Your task to perform on an android device: turn off airplane mode Image 0: 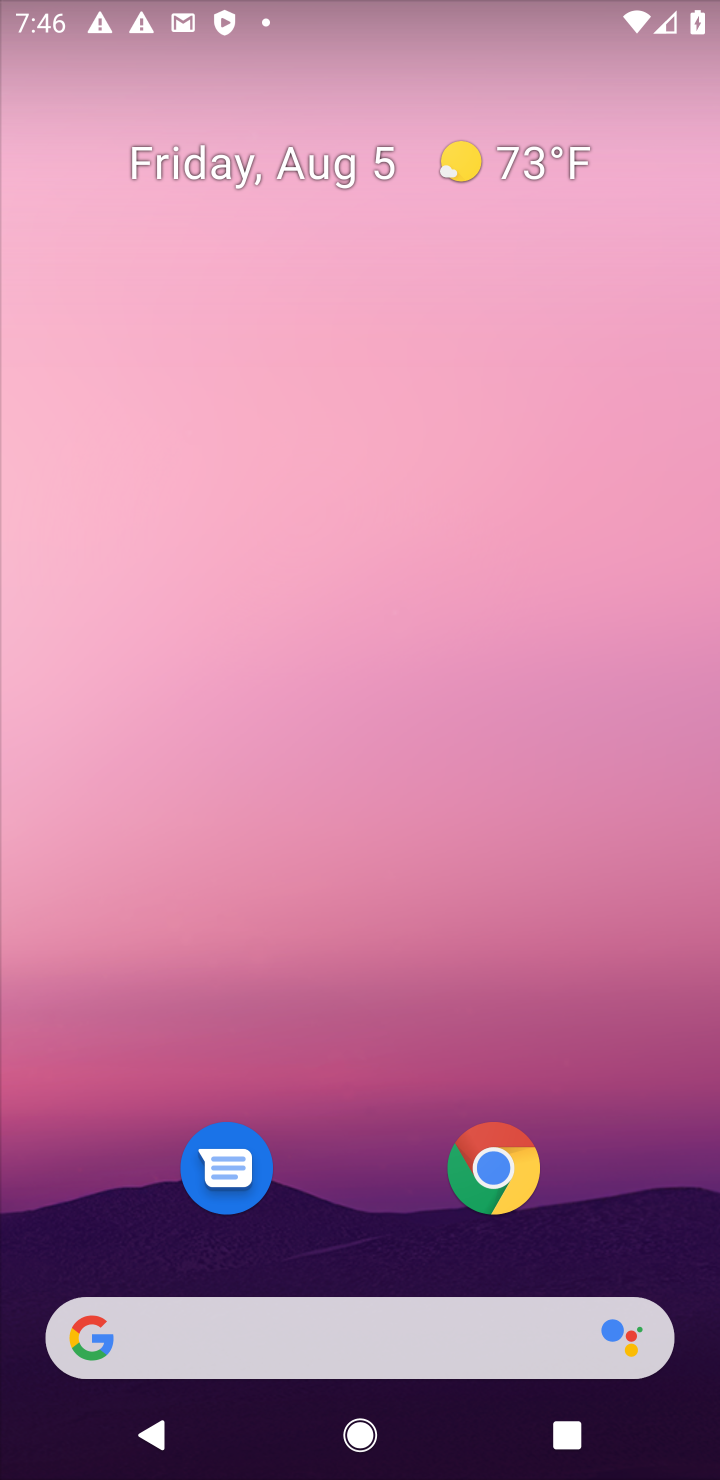
Step 0: click (400, 371)
Your task to perform on an android device: turn off airplane mode Image 1: 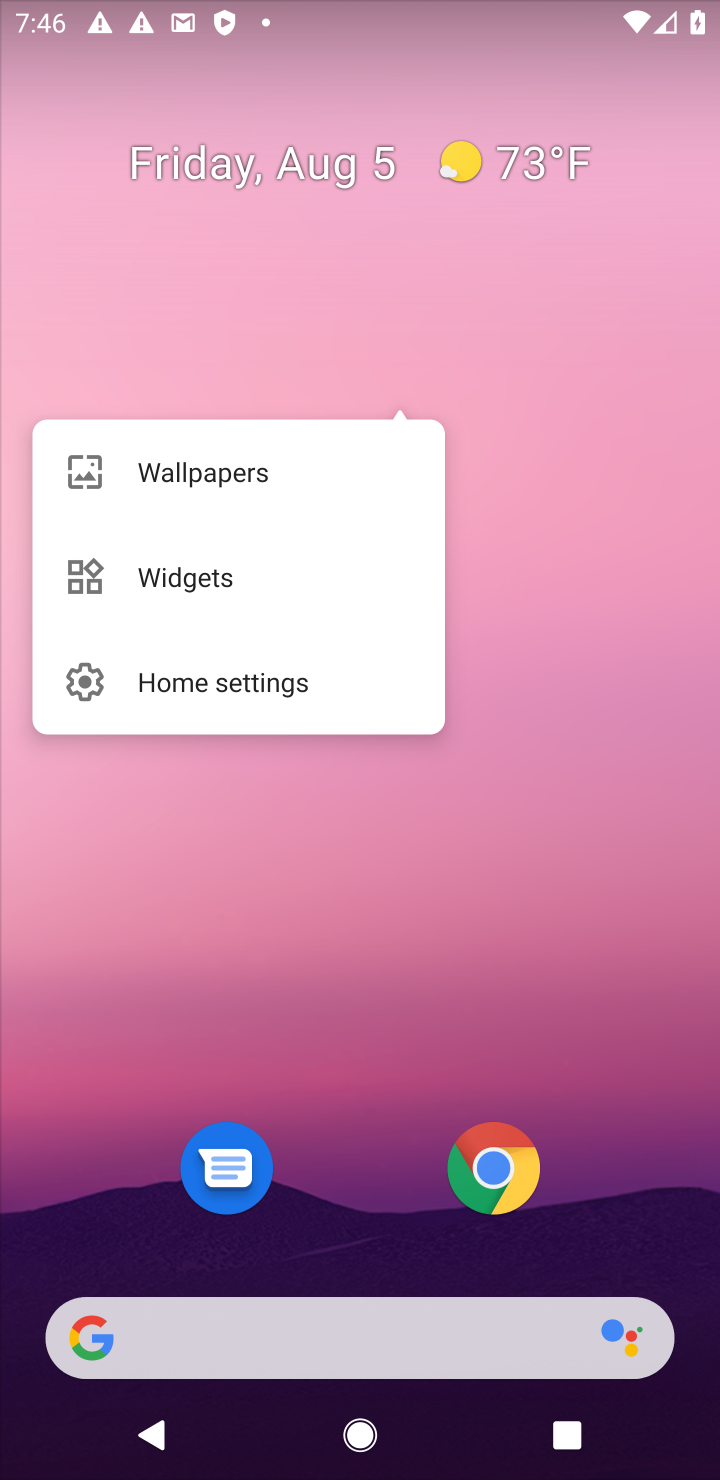
Step 1: drag from (461, 974) to (544, 38)
Your task to perform on an android device: turn off airplane mode Image 2: 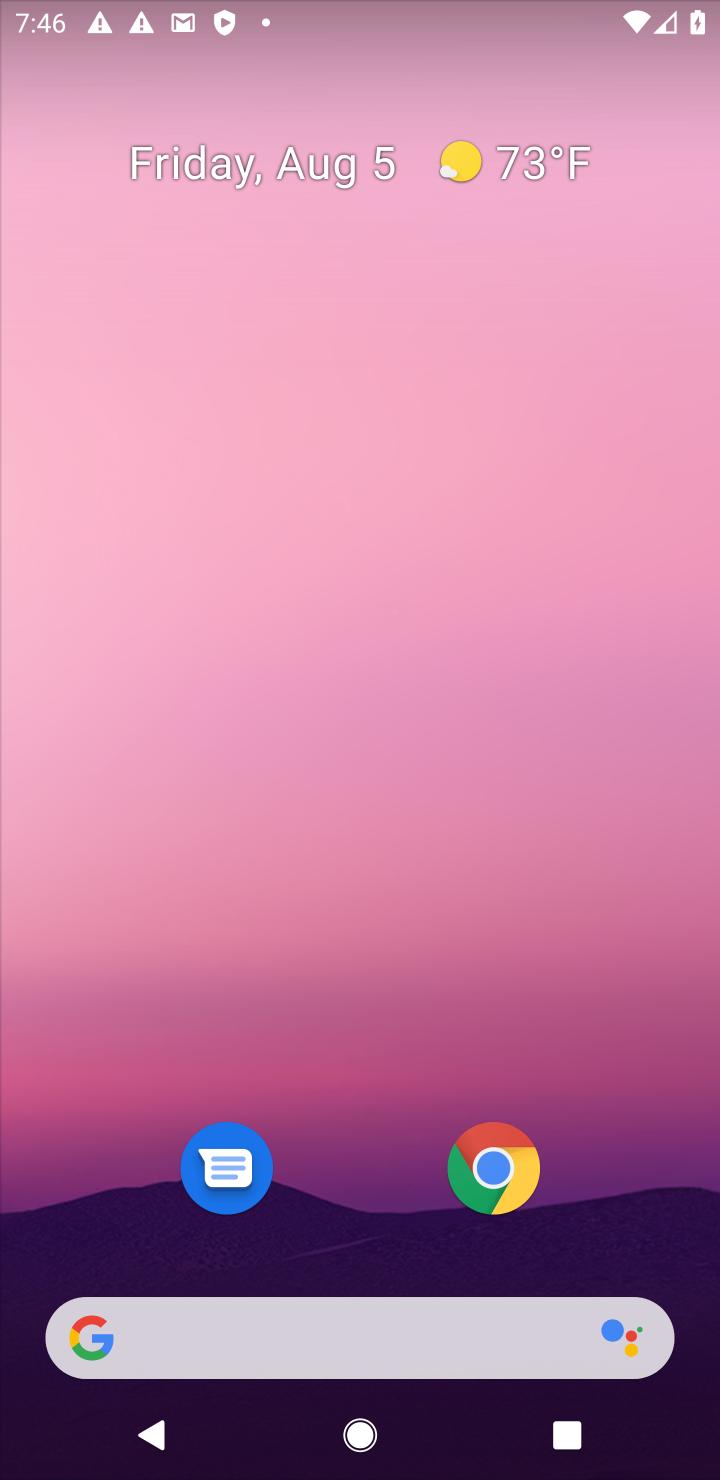
Step 2: drag from (383, 1082) to (483, 126)
Your task to perform on an android device: turn off airplane mode Image 3: 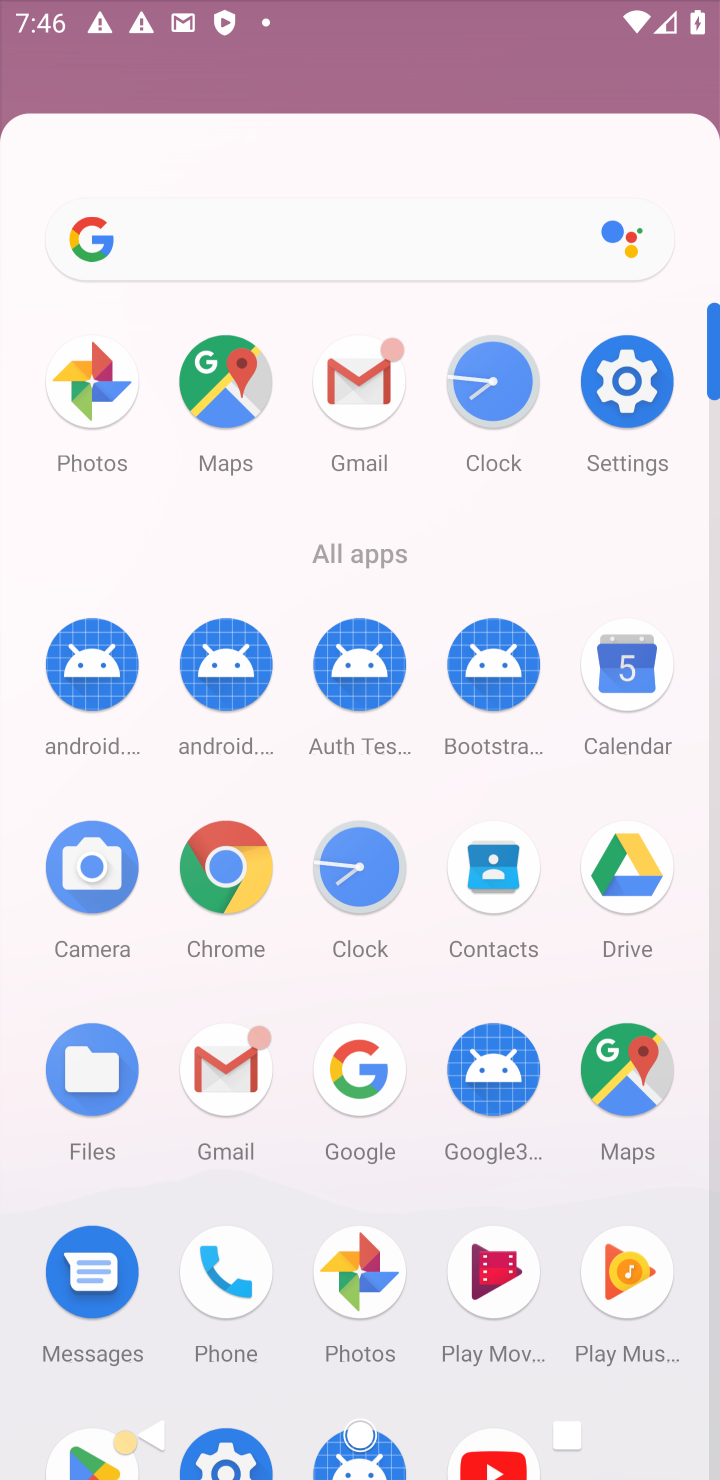
Step 3: drag from (379, 1267) to (434, 844)
Your task to perform on an android device: turn off airplane mode Image 4: 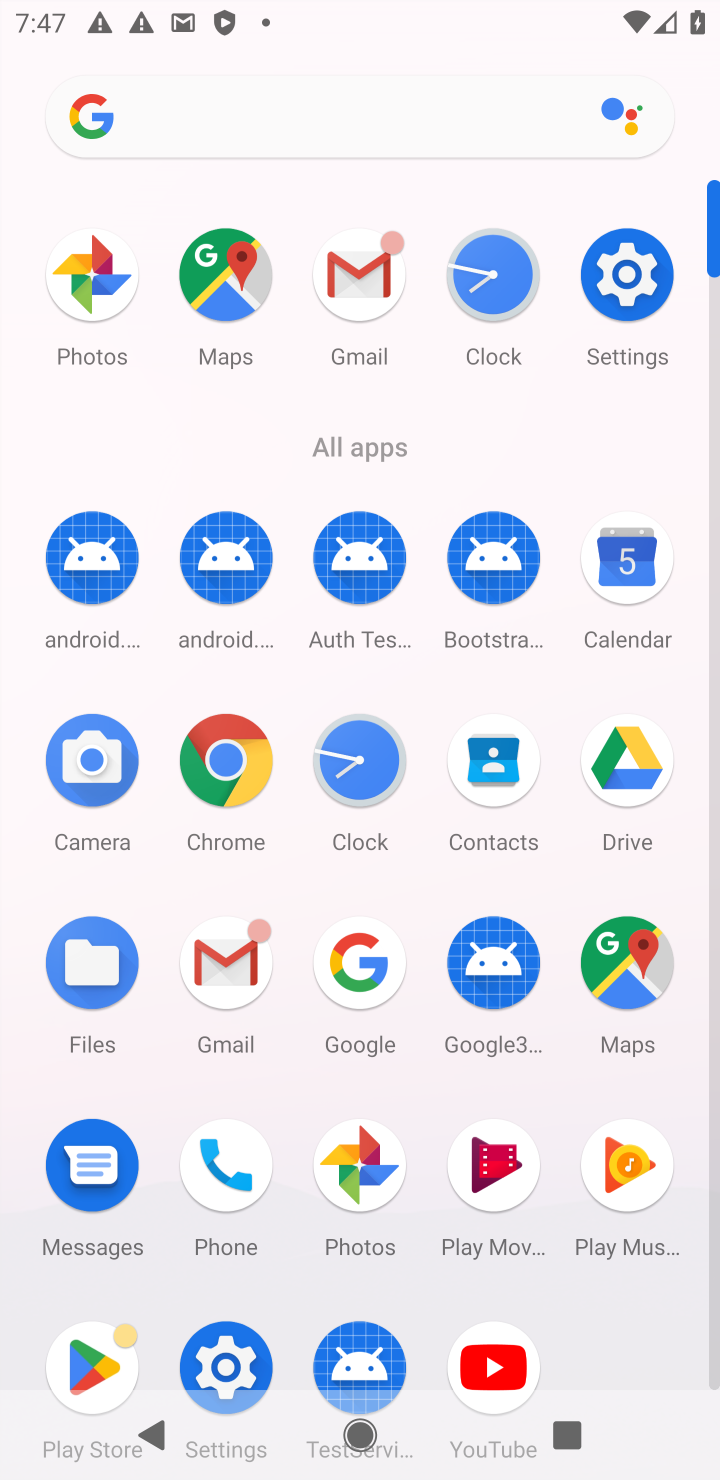
Step 4: click (653, 301)
Your task to perform on an android device: turn off airplane mode Image 5: 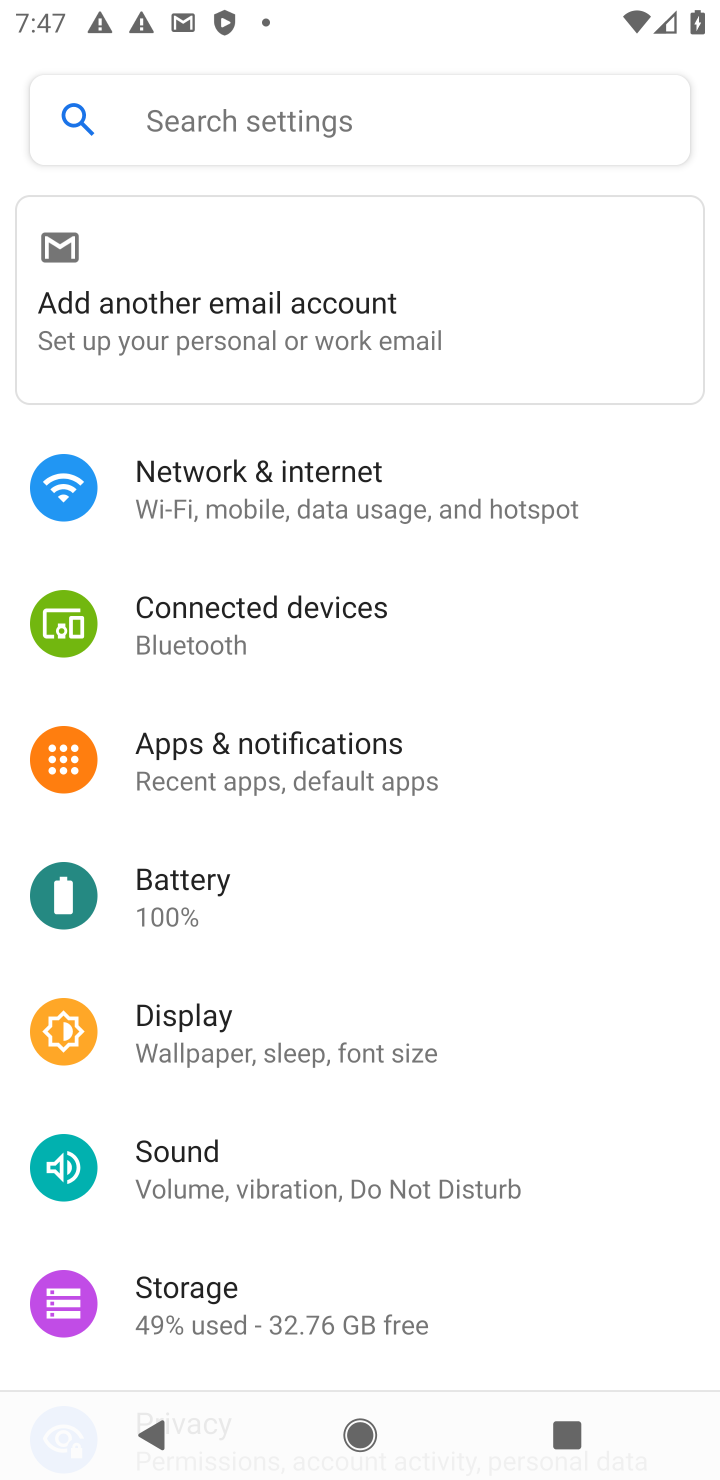
Step 5: click (360, 500)
Your task to perform on an android device: turn off airplane mode Image 6: 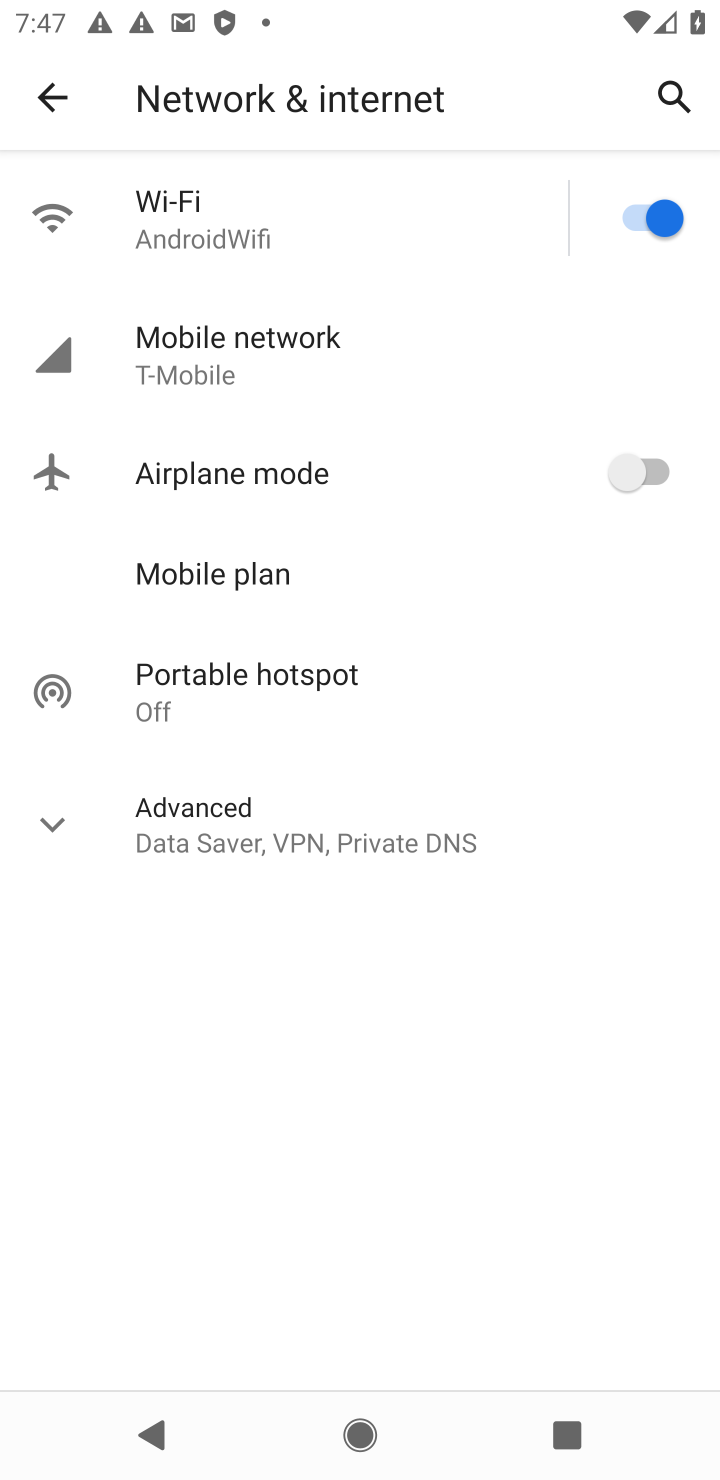
Step 6: click (386, 481)
Your task to perform on an android device: turn off airplane mode Image 7: 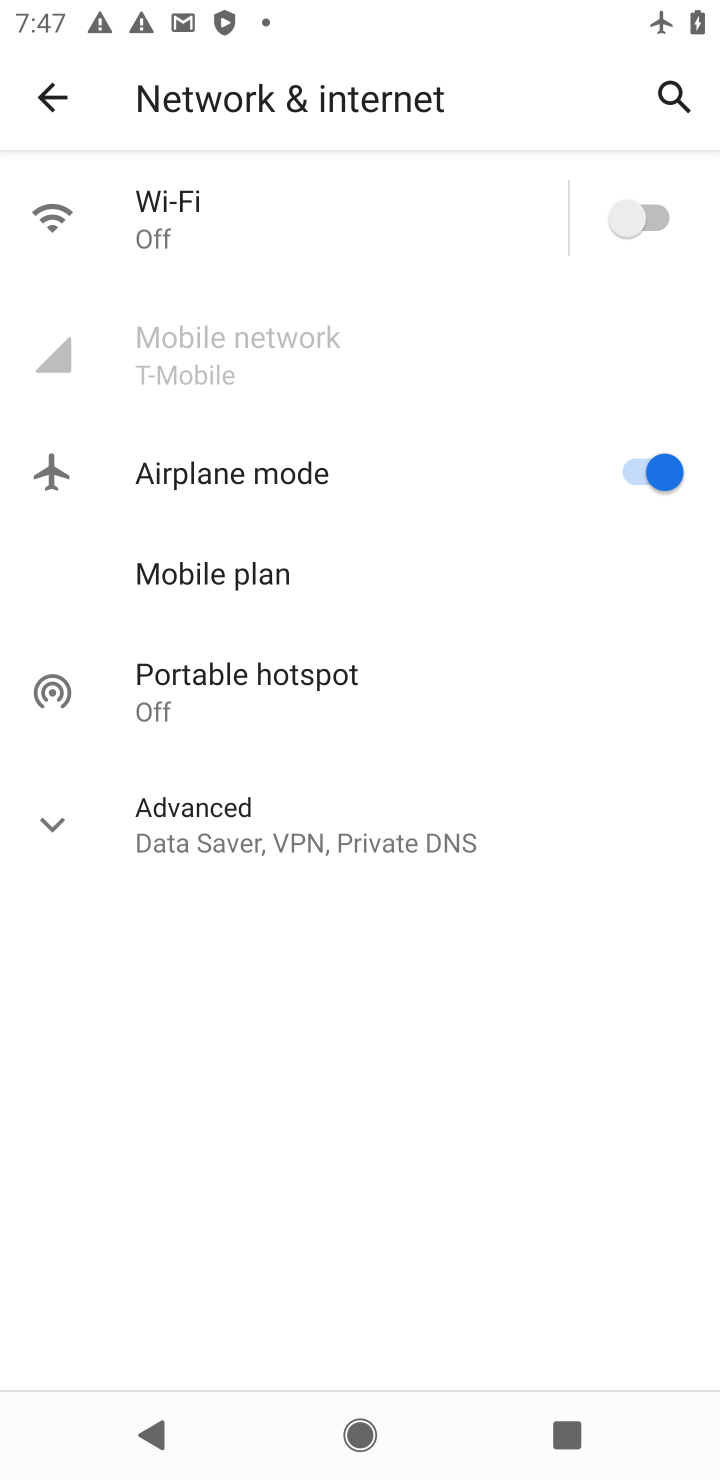
Step 7: click (665, 471)
Your task to perform on an android device: turn off airplane mode Image 8: 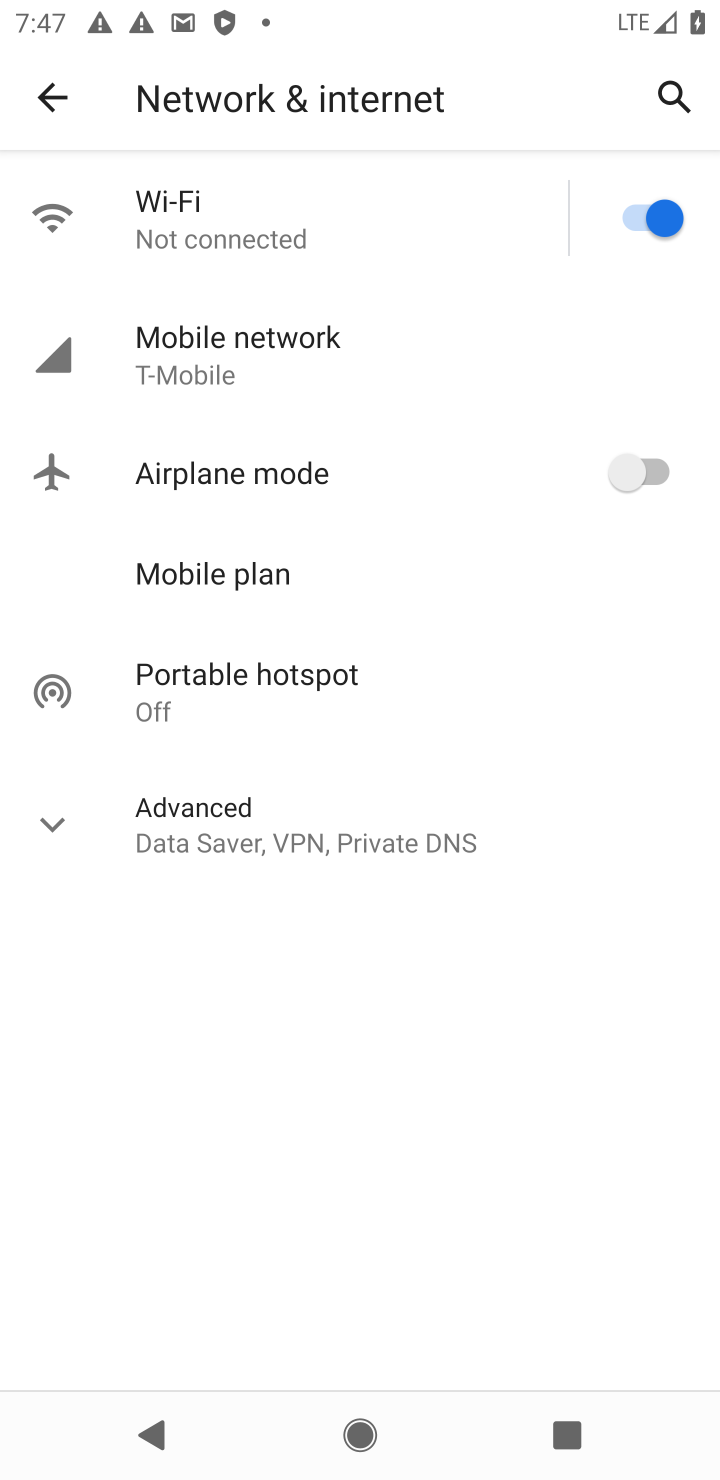
Step 8: task complete